Your task to perform on an android device: Is it going to rain this weekend? Image 0: 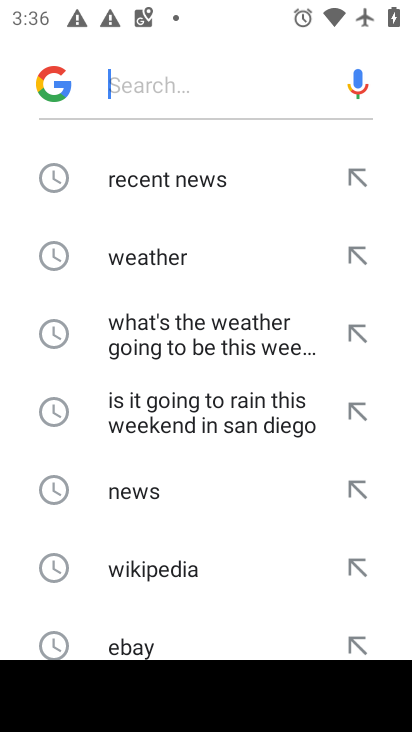
Step 0: press home button
Your task to perform on an android device: Is it going to rain this weekend? Image 1: 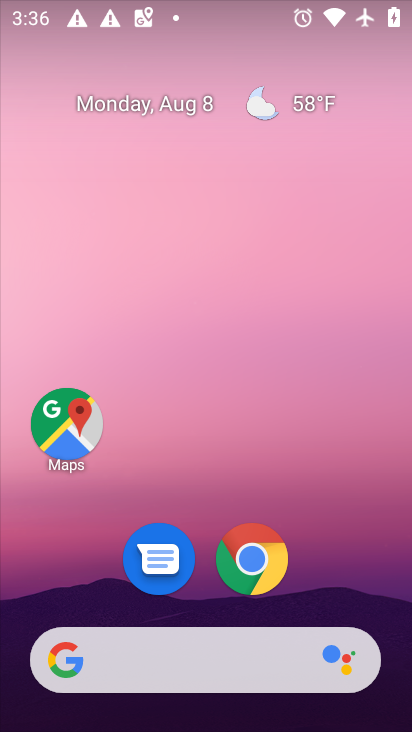
Step 1: drag from (185, 656) to (207, 121)
Your task to perform on an android device: Is it going to rain this weekend? Image 2: 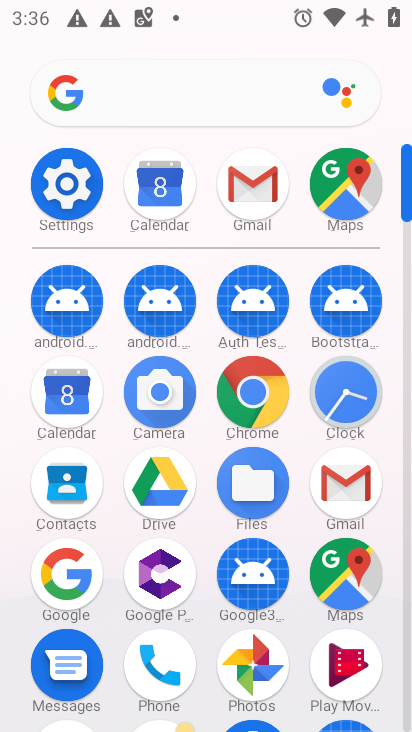
Step 2: click (62, 576)
Your task to perform on an android device: Is it going to rain this weekend? Image 3: 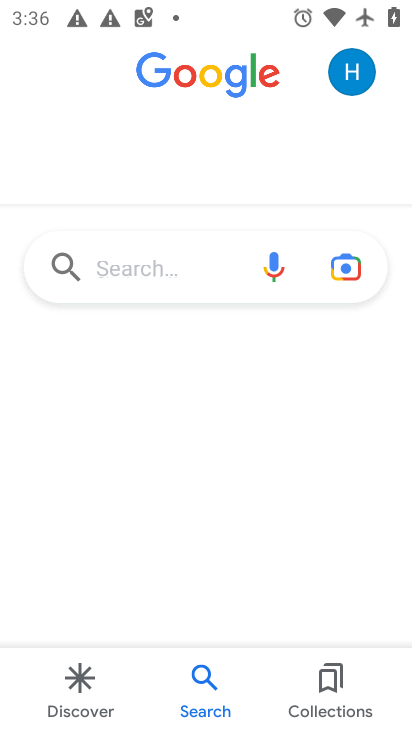
Step 3: click (177, 273)
Your task to perform on an android device: Is it going to rain this weekend? Image 4: 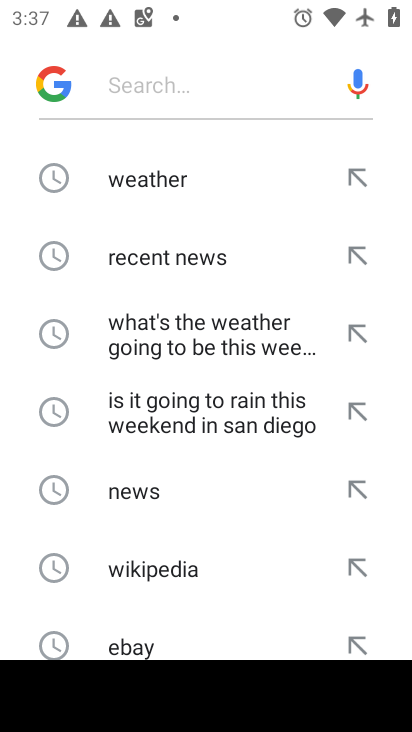
Step 4: type "Is it going to rain this weekend?"
Your task to perform on an android device: Is it going to rain this weekend? Image 5: 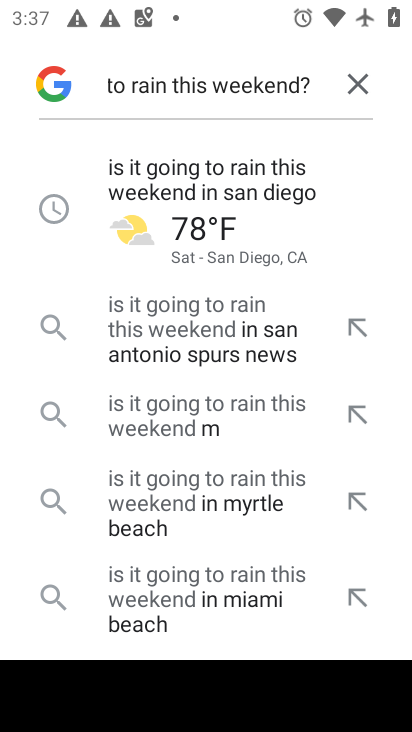
Step 5: click (254, 203)
Your task to perform on an android device: Is it going to rain this weekend? Image 6: 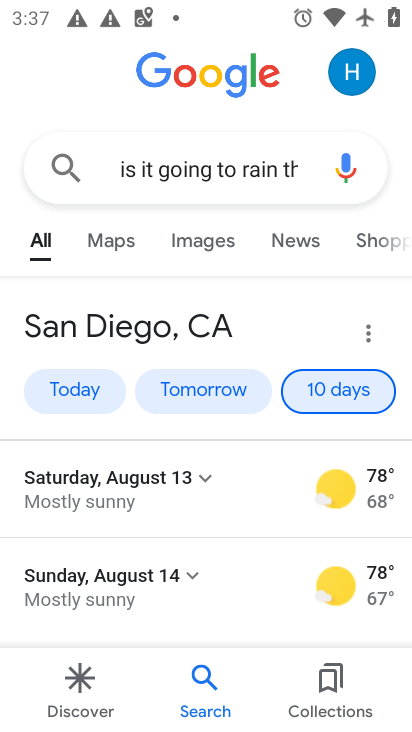
Step 6: task complete